Your task to perform on an android device: open app "Upside-Cash back on gas & food" (install if not already installed) and enter user name: "transatlantic@gmail.com" and password: "experiences" Image 0: 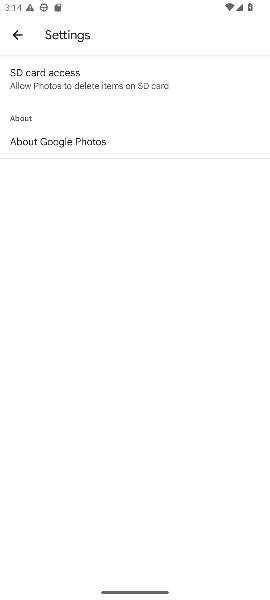
Step 0: press home button
Your task to perform on an android device: open app "Upside-Cash back on gas & food" (install if not already installed) and enter user name: "transatlantic@gmail.com" and password: "experiences" Image 1: 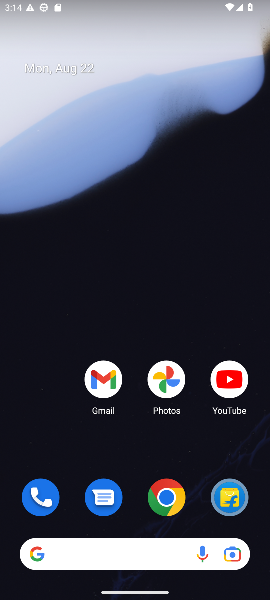
Step 1: drag from (162, 454) to (198, 15)
Your task to perform on an android device: open app "Upside-Cash back on gas & food" (install if not already installed) and enter user name: "transatlantic@gmail.com" and password: "experiences" Image 2: 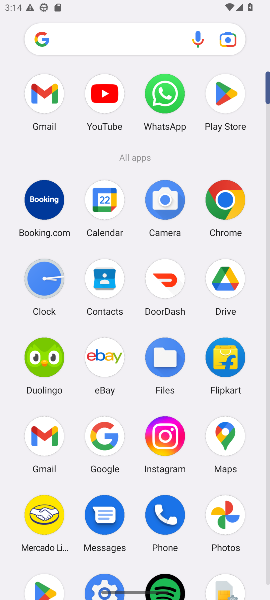
Step 2: click (226, 83)
Your task to perform on an android device: open app "Upside-Cash back on gas & food" (install if not already installed) and enter user name: "transatlantic@gmail.com" and password: "experiences" Image 3: 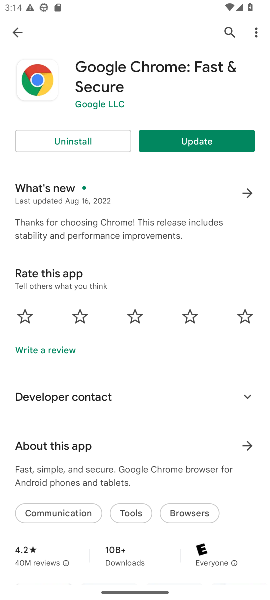
Step 3: click (223, 34)
Your task to perform on an android device: open app "Upside-Cash back on gas & food" (install if not already installed) and enter user name: "transatlantic@gmail.com" and password: "experiences" Image 4: 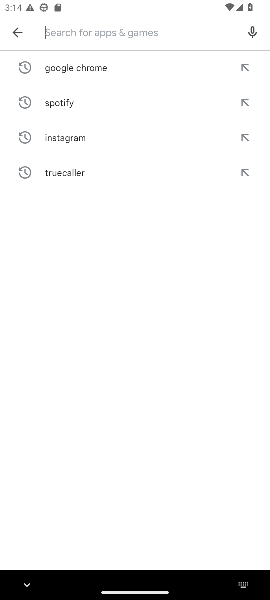
Step 4: type "Upside-Cash back on gas & food"
Your task to perform on an android device: open app "Upside-Cash back on gas & food" (install if not already installed) and enter user name: "transatlantic@gmail.com" and password: "experiences" Image 5: 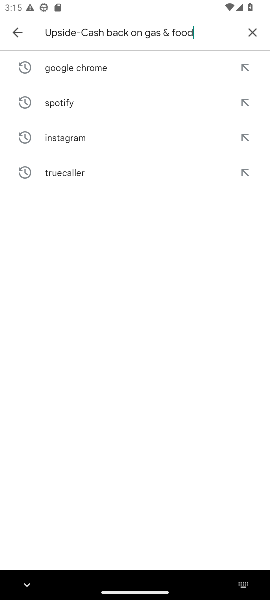
Step 5: type ""
Your task to perform on an android device: open app "Upside-Cash back on gas & food" (install if not already installed) and enter user name: "transatlantic@gmail.com" and password: "experiences" Image 6: 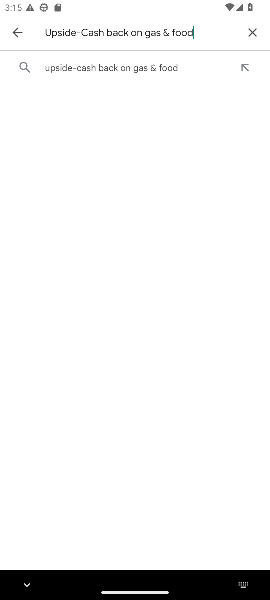
Step 6: click (135, 67)
Your task to perform on an android device: open app "Upside-Cash back on gas & food" (install if not already installed) and enter user name: "transatlantic@gmail.com" and password: "experiences" Image 7: 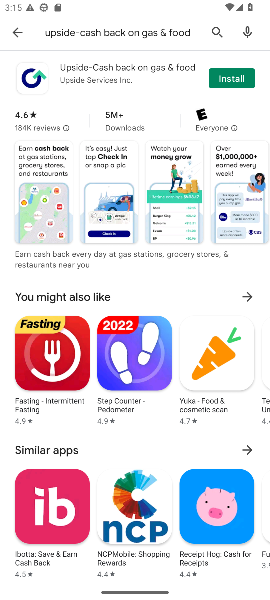
Step 7: click (236, 77)
Your task to perform on an android device: open app "Upside-Cash back on gas & food" (install if not already installed) and enter user name: "transatlantic@gmail.com" and password: "experiences" Image 8: 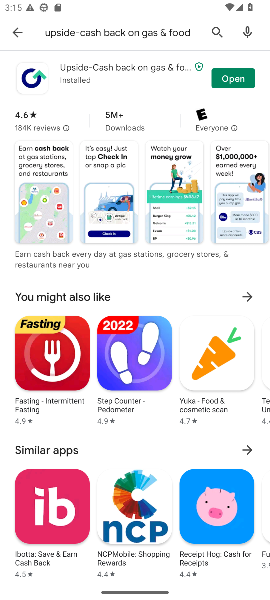
Step 8: click (219, 72)
Your task to perform on an android device: open app "Upside-Cash back on gas & food" (install if not already installed) and enter user name: "transatlantic@gmail.com" and password: "experiences" Image 9: 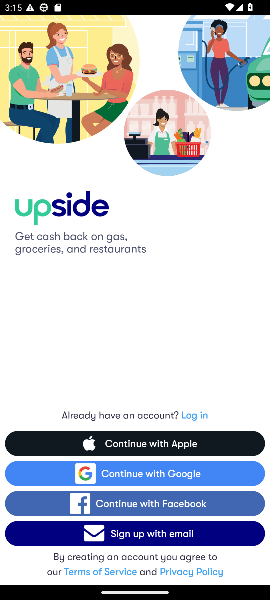
Step 9: task complete